Your task to perform on an android device: turn on wifi Image 0: 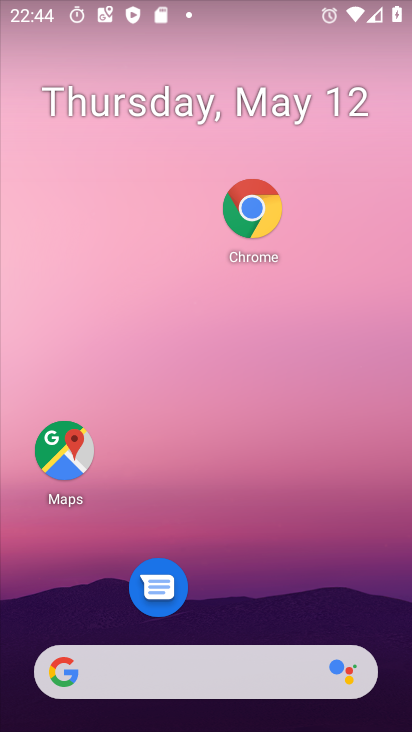
Step 0: drag from (246, 534) to (270, 204)
Your task to perform on an android device: turn on wifi Image 1: 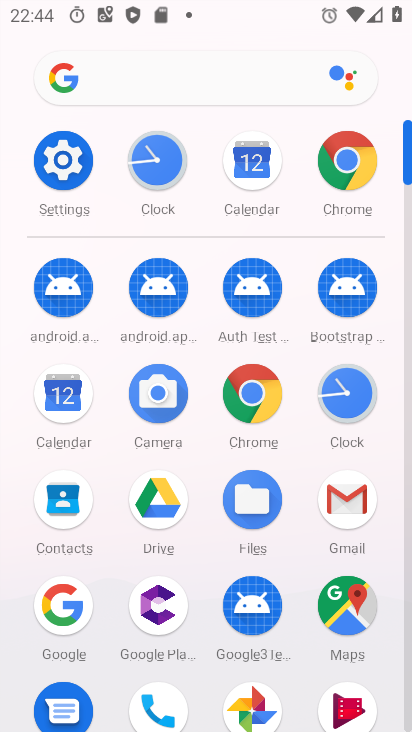
Step 1: click (61, 150)
Your task to perform on an android device: turn on wifi Image 2: 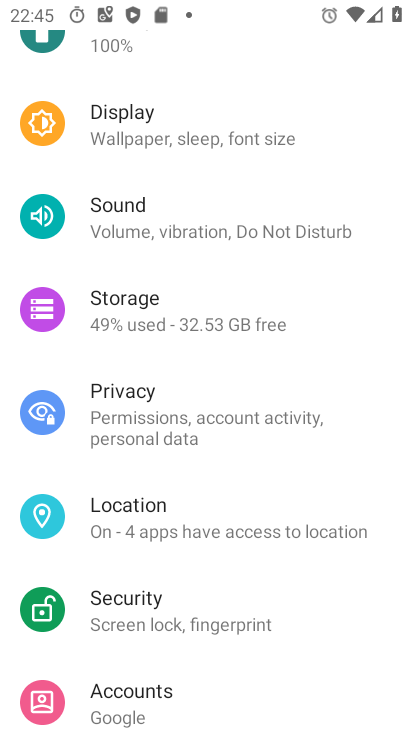
Step 2: drag from (226, 125) to (195, 679)
Your task to perform on an android device: turn on wifi Image 3: 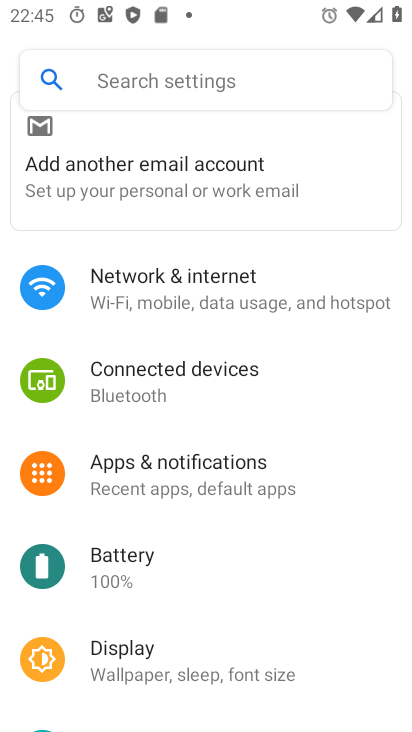
Step 3: click (225, 281)
Your task to perform on an android device: turn on wifi Image 4: 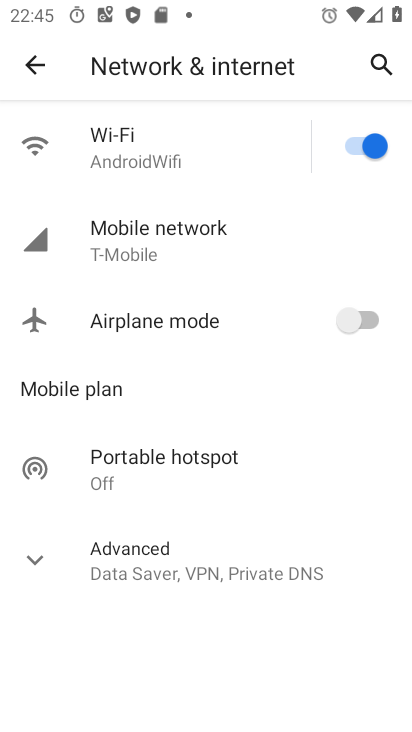
Step 4: task complete